Your task to perform on an android device: Open settings Image 0: 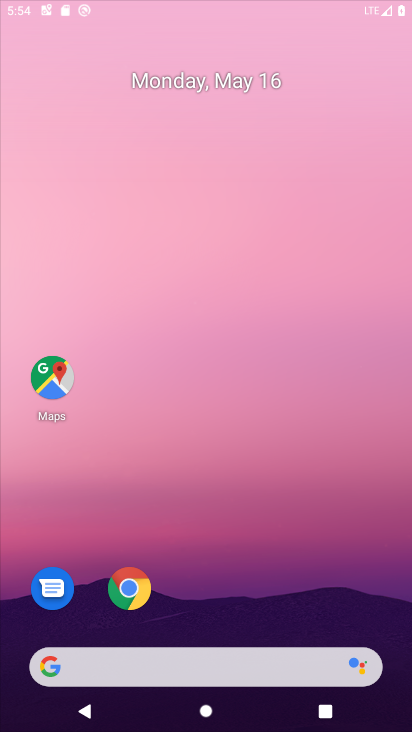
Step 0: click (221, 89)
Your task to perform on an android device: Open settings Image 1: 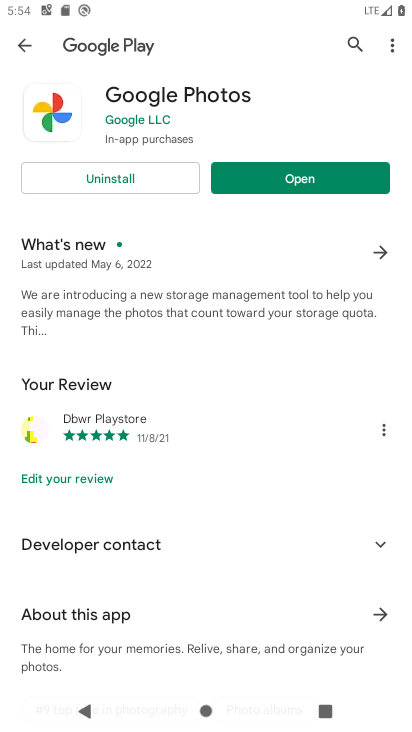
Step 1: press home button
Your task to perform on an android device: Open settings Image 2: 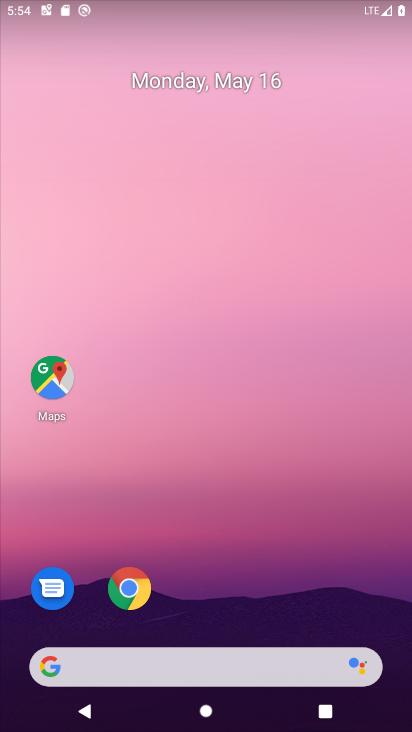
Step 2: drag from (265, 493) to (220, 58)
Your task to perform on an android device: Open settings Image 3: 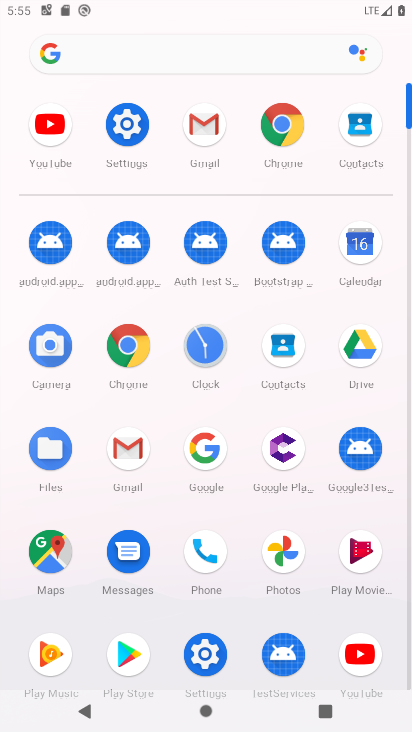
Step 3: click (123, 124)
Your task to perform on an android device: Open settings Image 4: 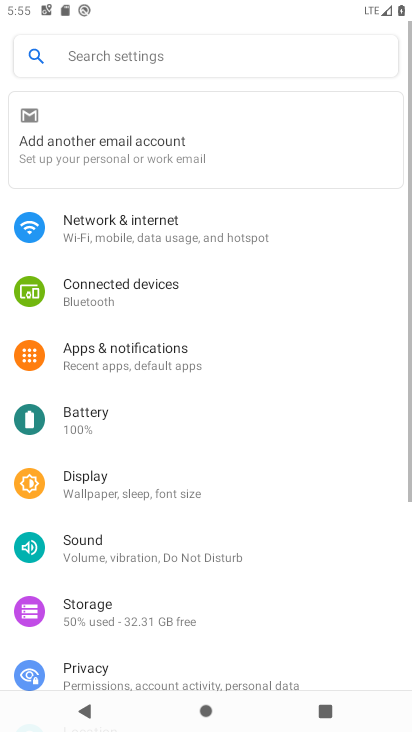
Step 4: task complete